Your task to perform on an android device: Open Maps and search for coffee Image 0: 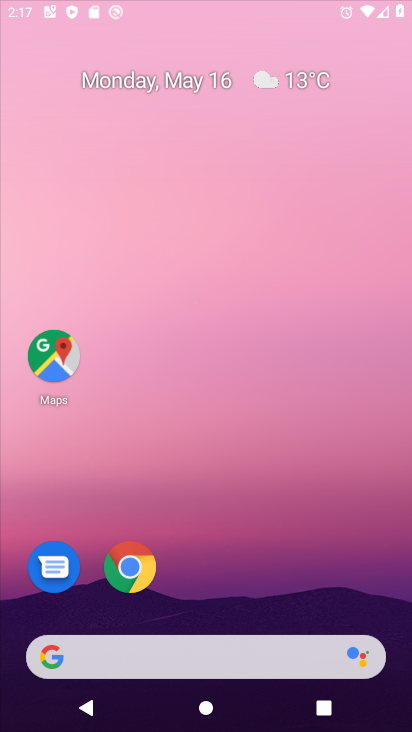
Step 0: press home button
Your task to perform on an android device: Open Maps and search for coffee Image 1: 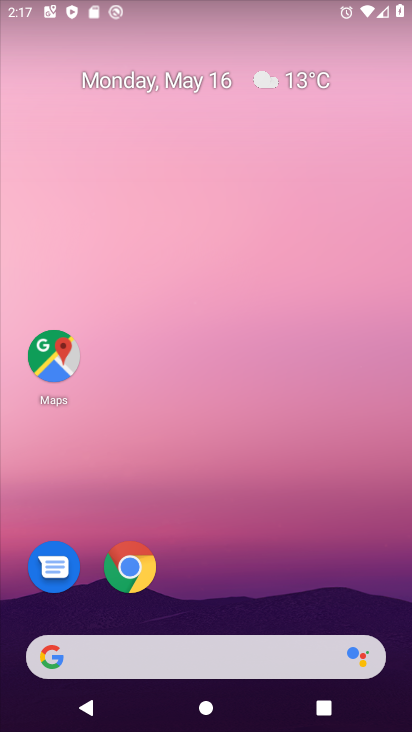
Step 1: click (49, 364)
Your task to perform on an android device: Open Maps and search for coffee Image 2: 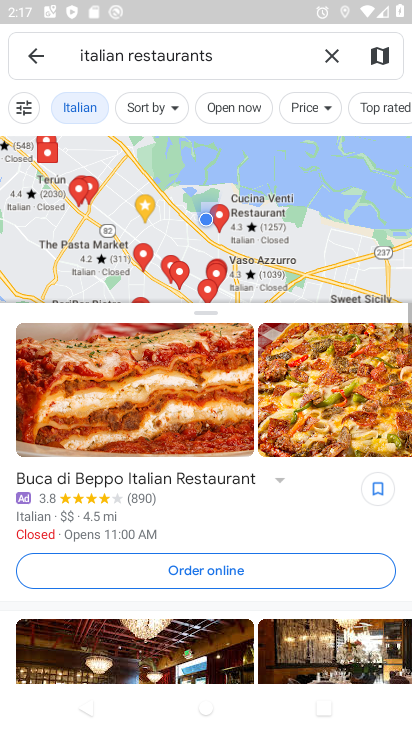
Step 2: click (336, 59)
Your task to perform on an android device: Open Maps and search for coffee Image 3: 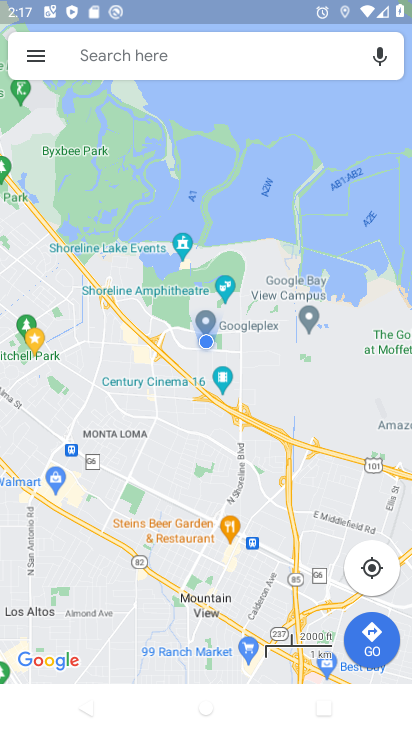
Step 3: click (221, 55)
Your task to perform on an android device: Open Maps and search for coffee Image 4: 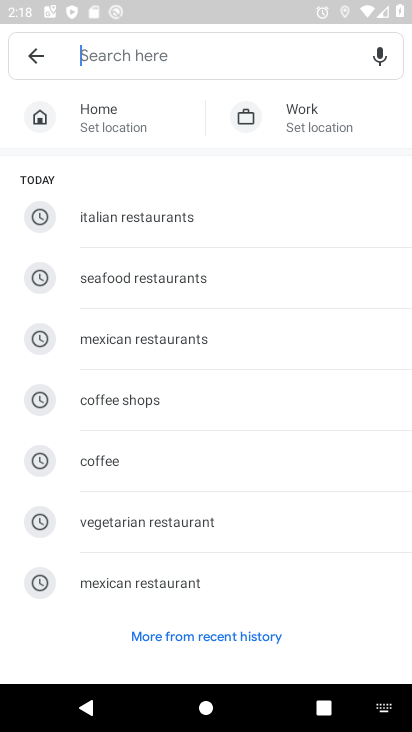
Step 4: type "coffee"
Your task to perform on an android device: Open Maps and search for coffee Image 5: 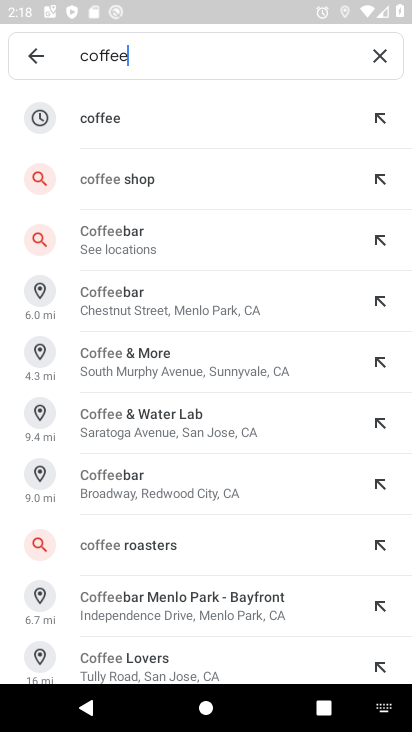
Step 5: click (148, 104)
Your task to perform on an android device: Open Maps and search for coffee Image 6: 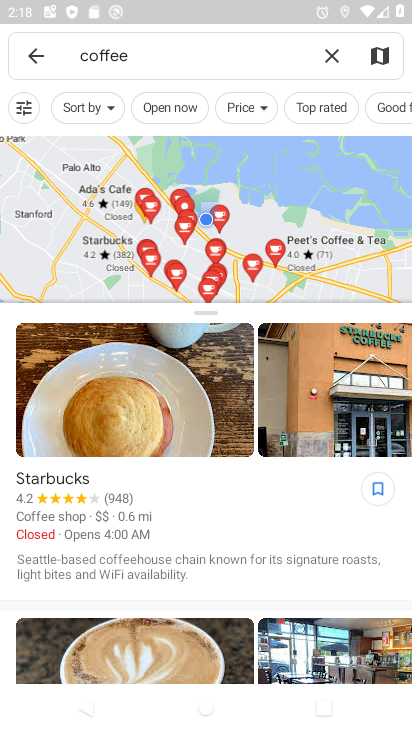
Step 6: task complete